Your task to perform on an android device: turn vacation reply on in the gmail app Image 0: 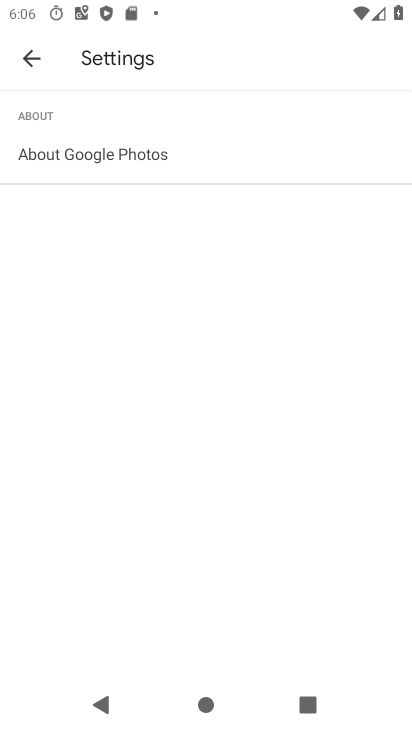
Step 0: press home button
Your task to perform on an android device: turn vacation reply on in the gmail app Image 1: 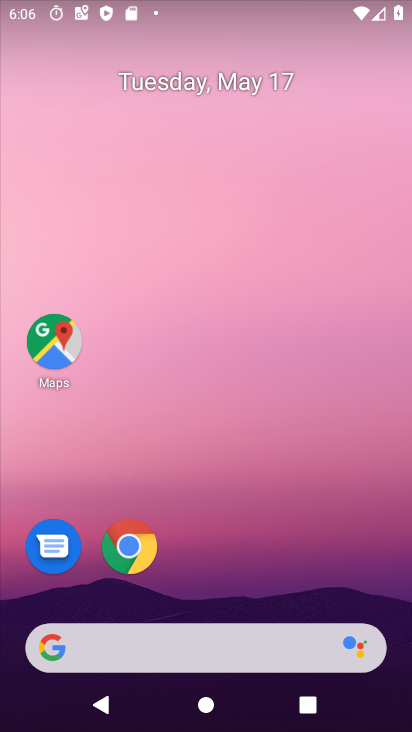
Step 1: drag from (214, 560) to (189, 156)
Your task to perform on an android device: turn vacation reply on in the gmail app Image 2: 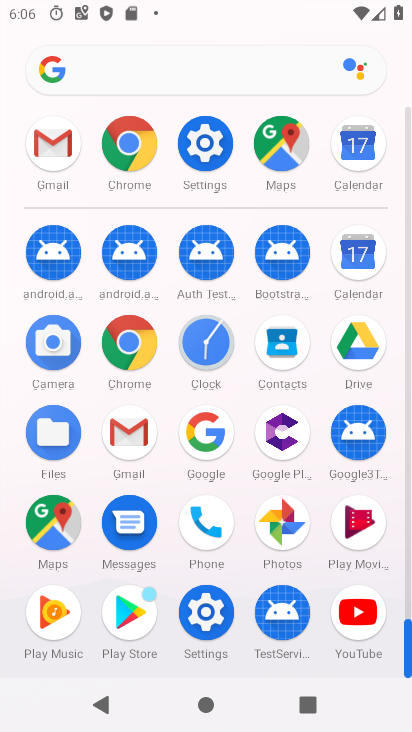
Step 2: click (43, 156)
Your task to perform on an android device: turn vacation reply on in the gmail app Image 3: 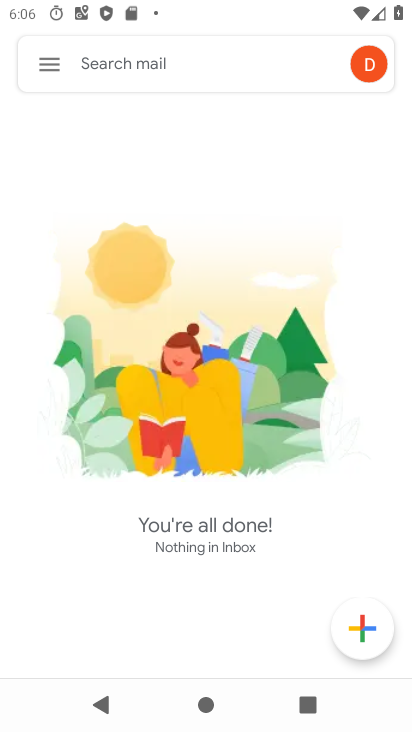
Step 3: click (49, 67)
Your task to perform on an android device: turn vacation reply on in the gmail app Image 4: 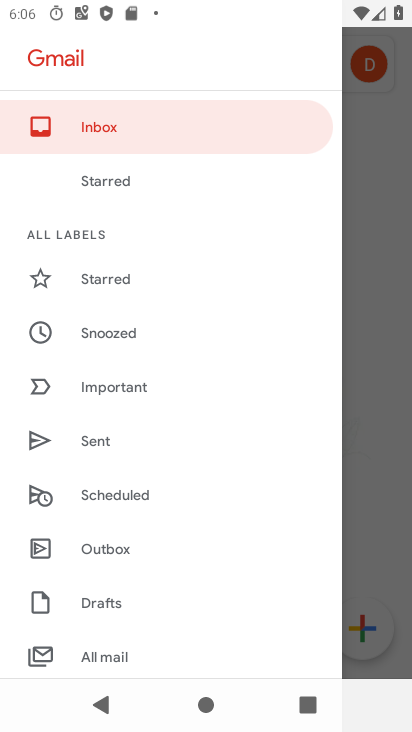
Step 4: drag from (156, 364) to (174, 235)
Your task to perform on an android device: turn vacation reply on in the gmail app Image 5: 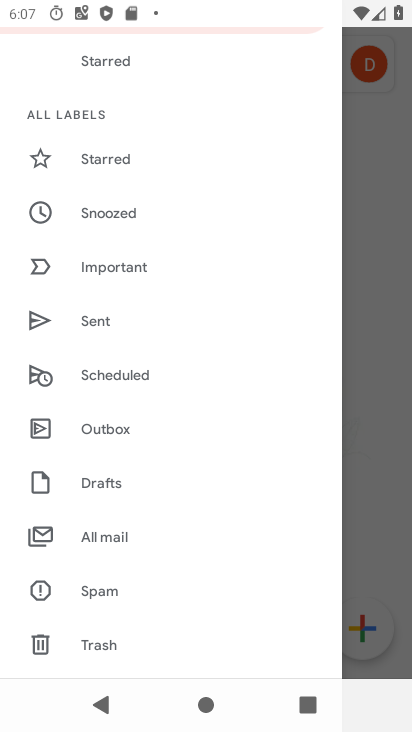
Step 5: drag from (140, 369) to (163, 220)
Your task to perform on an android device: turn vacation reply on in the gmail app Image 6: 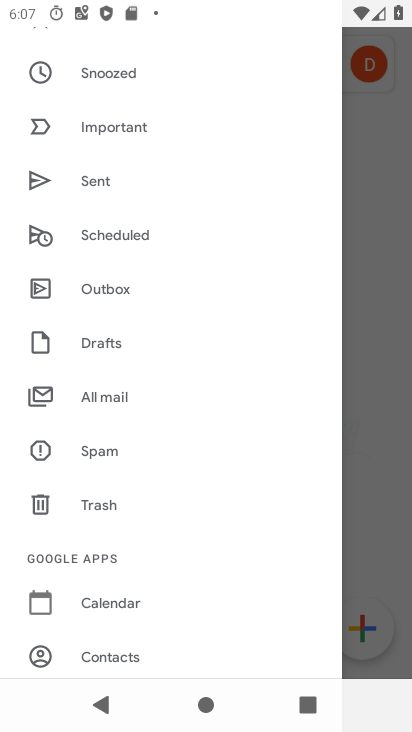
Step 6: drag from (157, 319) to (170, 275)
Your task to perform on an android device: turn vacation reply on in the gmail app Image 7: 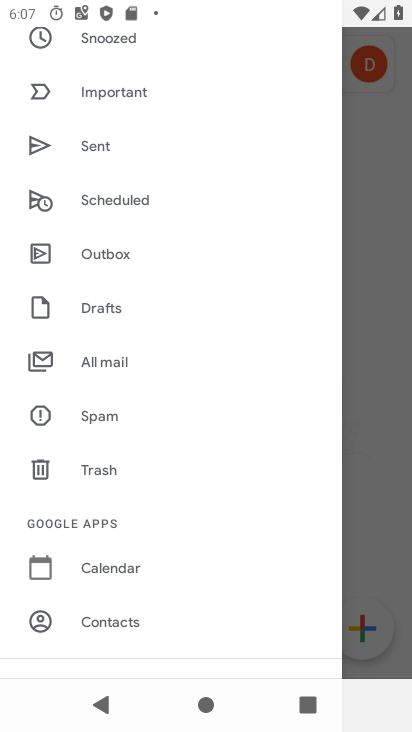
Step 7: drag from (130, 602) to (185, 253)
Your task to perform on an android device: turn vacation reply on in the gmail app Image 8: 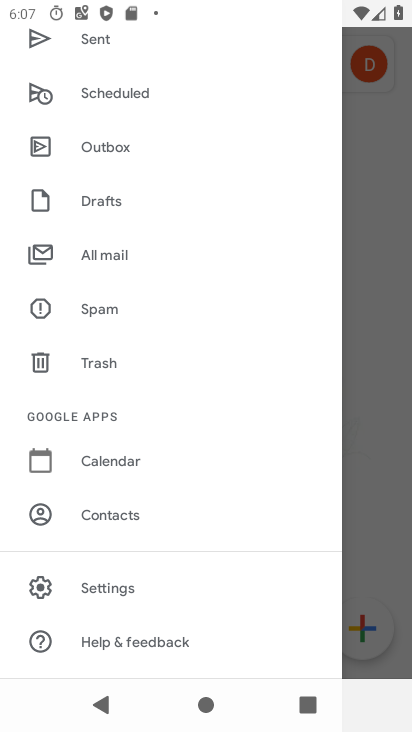
Step 8: click (121, 595)
Your task to perform on an android device: turn vacation reply on in the gmail app Image 9: 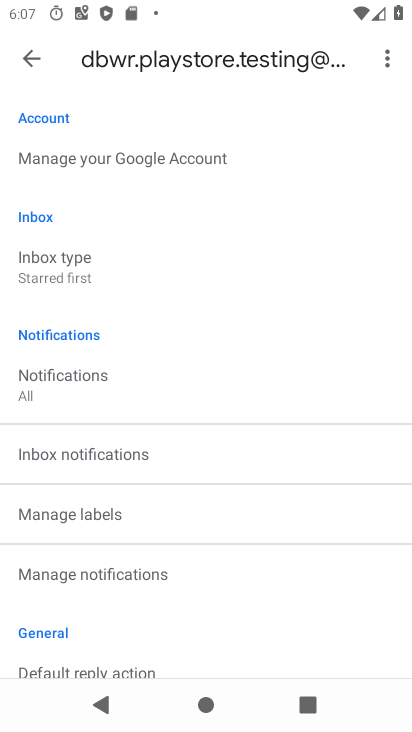
Step 9: drag from (123, 621) to (153, 376)
Your task to perform on an android device: turn vacation reply on in the gmail app Image 10: 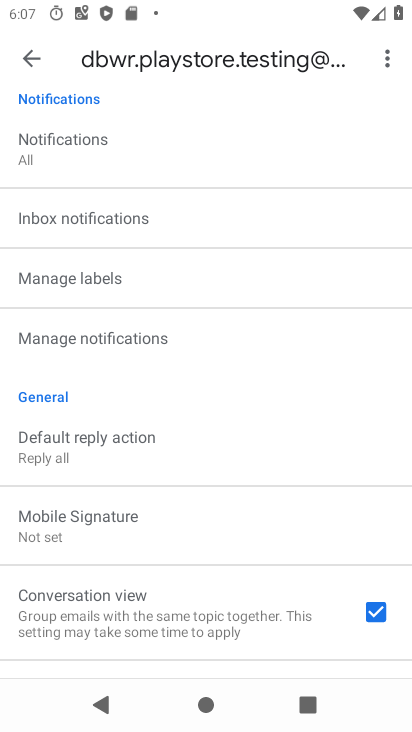
Step 10: drag from (139, 591) to (160, 380)
Your task to perform on an android device: turn vacation reply on in the gmail app Image 11: 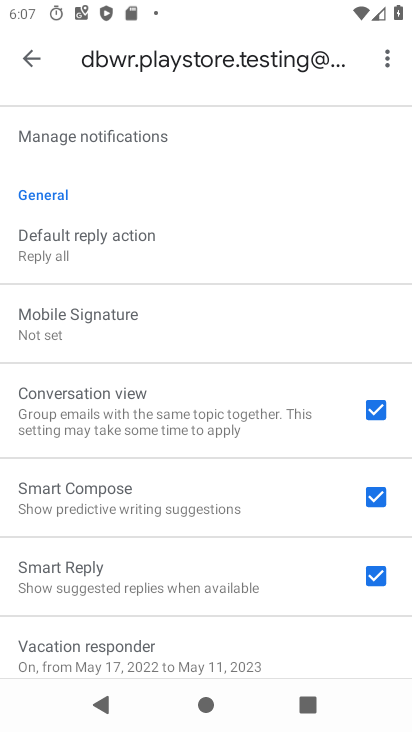
Step 11: click (204, 646)
Your task to perform on an android device: turn vacation reply on in the gmail app Image 12: 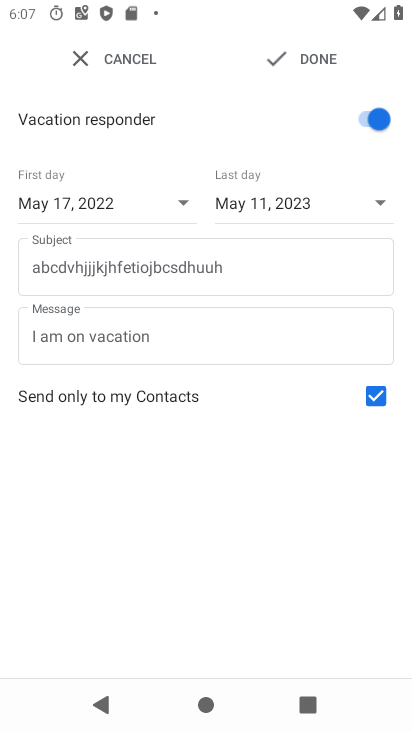
Step 12: task complete